Your task to perform on an android device: Go to settings Image 0: 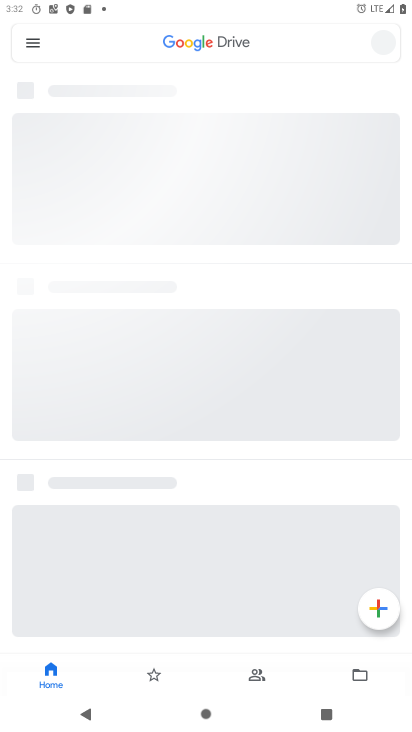
Step 0: drag from (263, 719) to (253, 650)
Your task to perform on an android device: Go to settings Image 1: 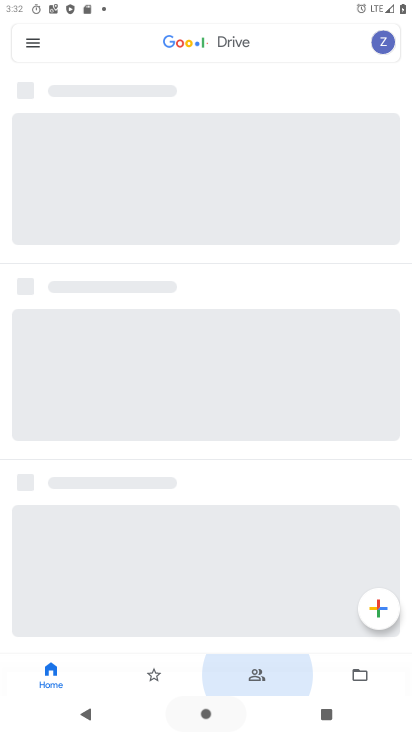
Step 1: click (242, 174)
Your task to perform on an android device: Go to settings Image 2: 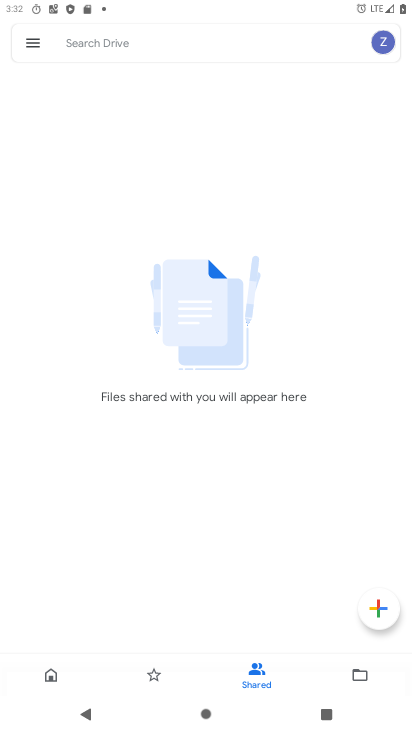
Step 2: press home button
Your task to perform on an android device: Go to settings Image 3: 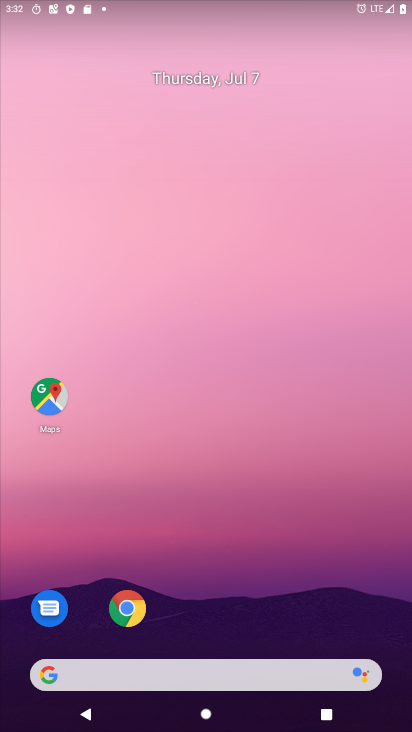
Step 3: drag from (252, 709) to (246, 160)
Your task to perform on an android device: Go to settings Image 4: 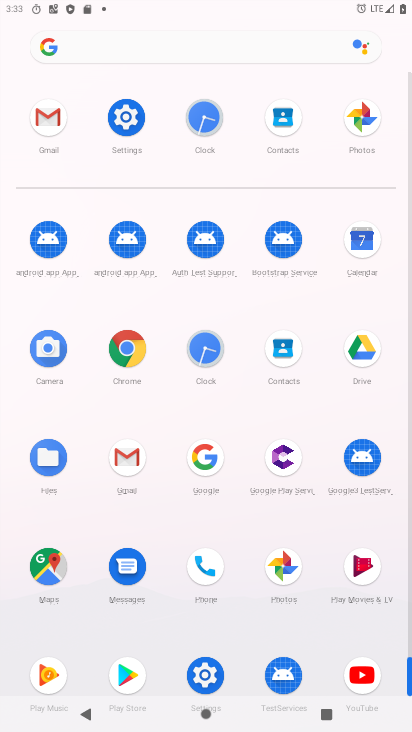
Step 4: click (126, 118)
Your task to perform on an android device: Go to settings Image 5: 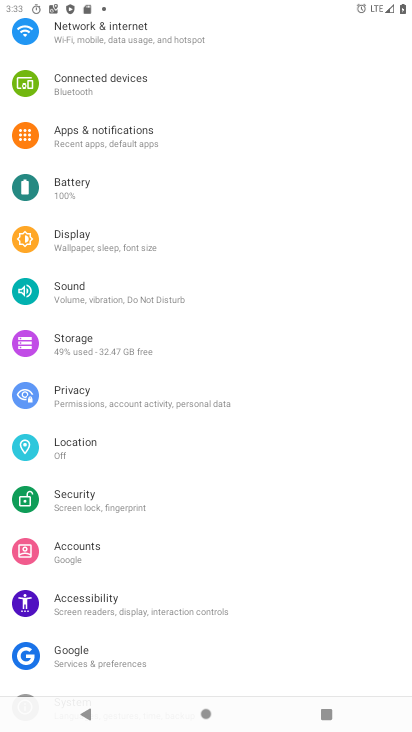
Step 5: task complete